Your task to perform on an android device: Open ESPN.com Image 0: 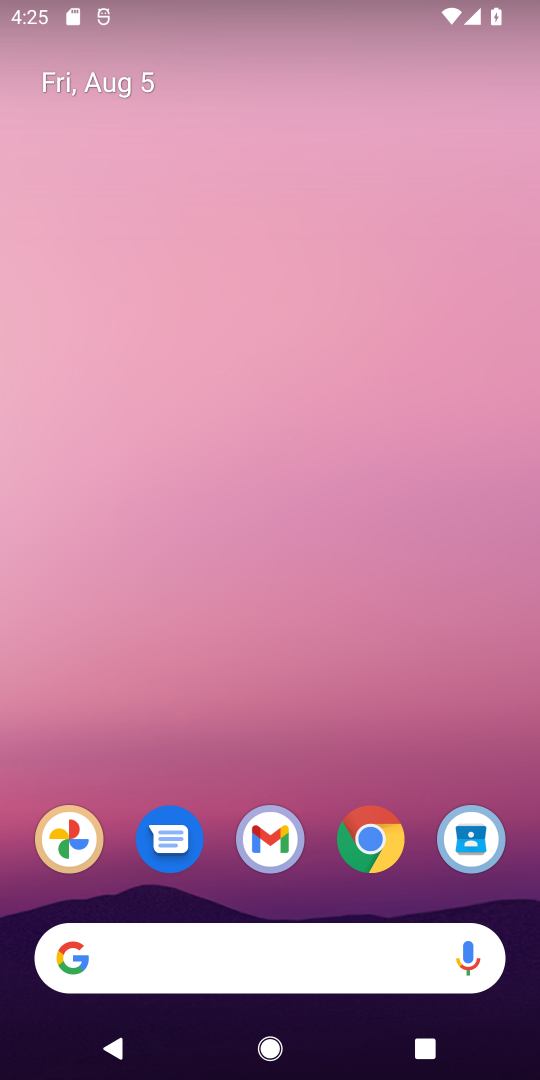
Step 0: click (353, 831)
Your task to perform on an android device: Open ESPN.com Image 1: 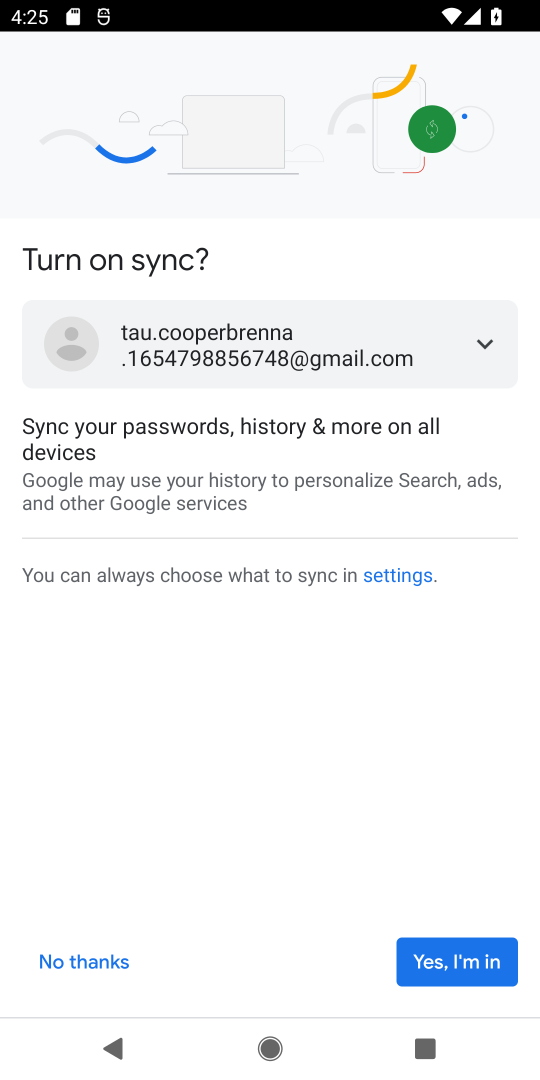
Step 1: click (442, 977)
Your task to perform on an android device: Open ESPN.com Image 2: 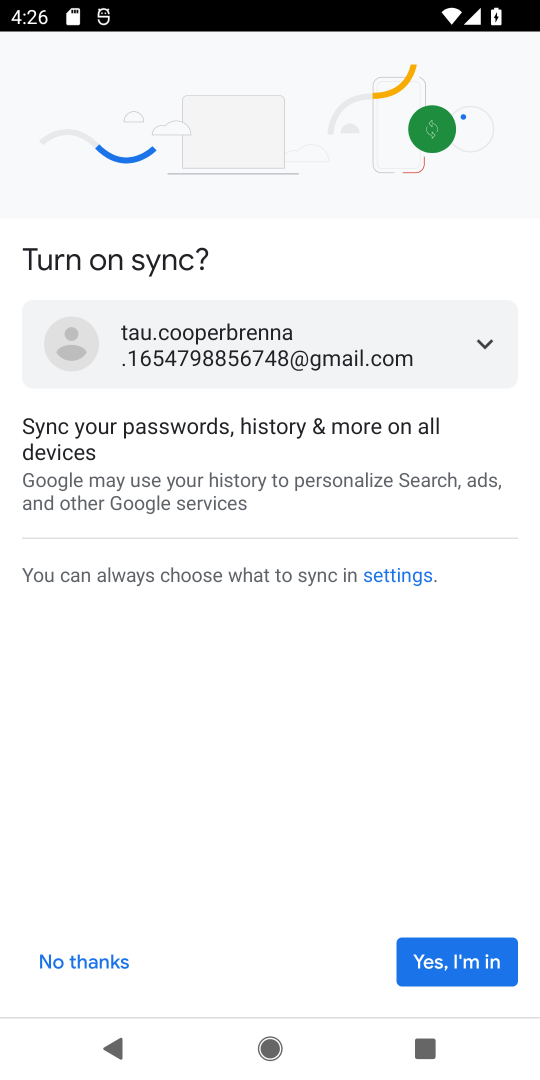
Step 2: click (442, 977)
Your task to perform on an android device: Open ESPN.com Image 3: 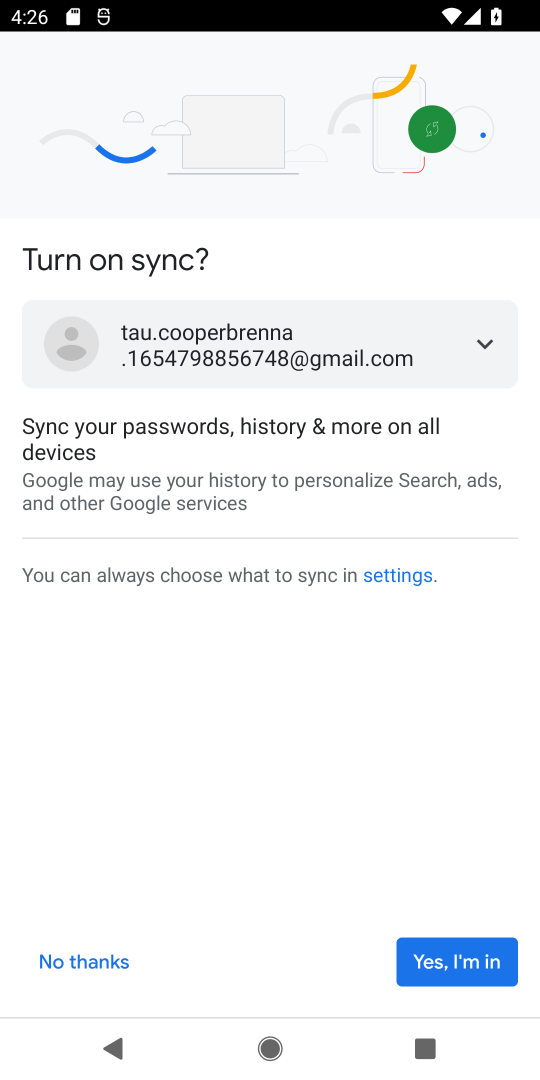
Step 3: click (451, 971)
Your task to perform on an android device: Open ESPN.com Image 4: 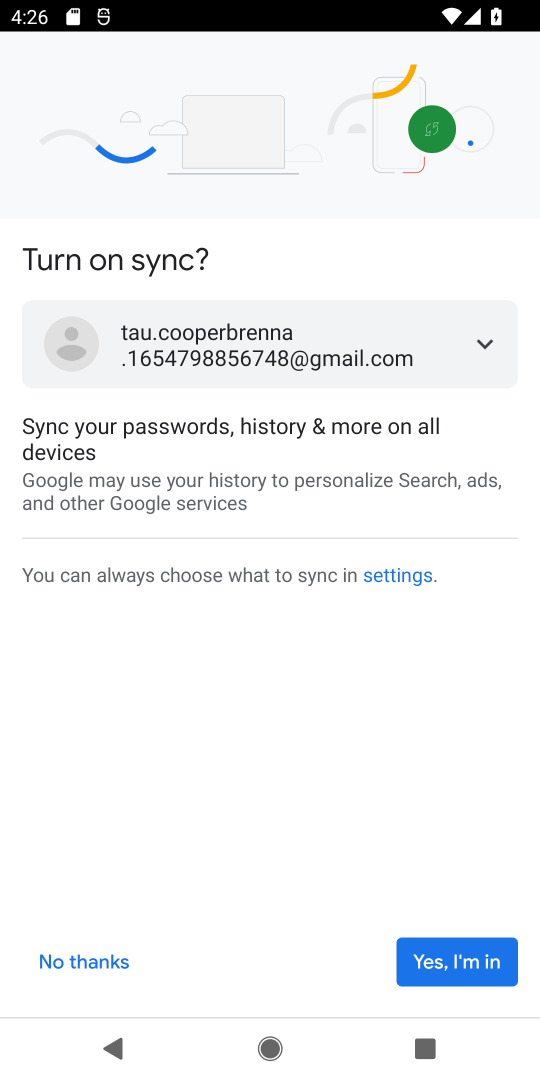
Step 4: click (439, 952)
Your task to perform on an android device: Open ESPN.com Image 5: 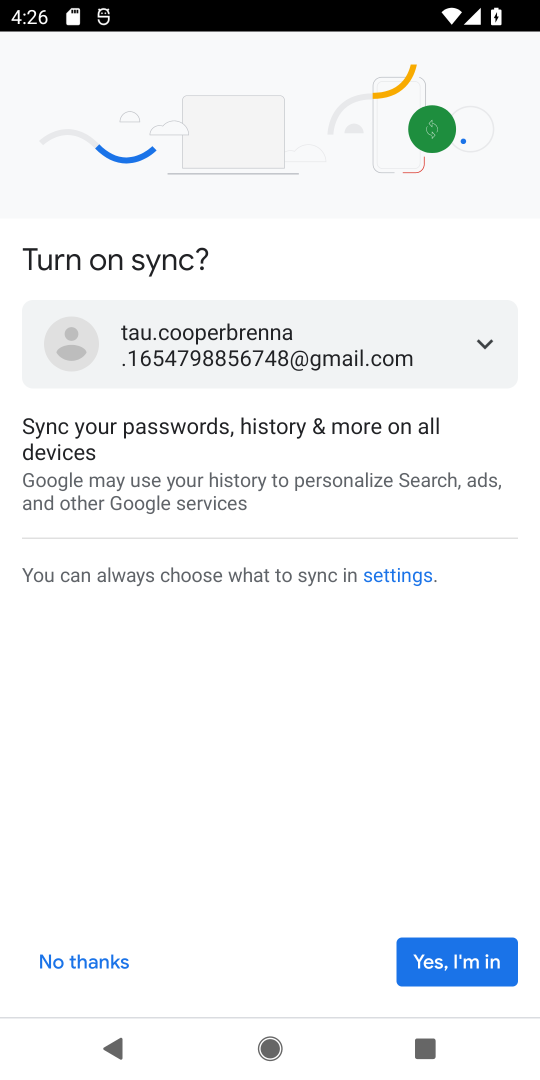
Step 5: click (473, 962)
Your task to perform on an android device: Open ESPN.com Image 6: 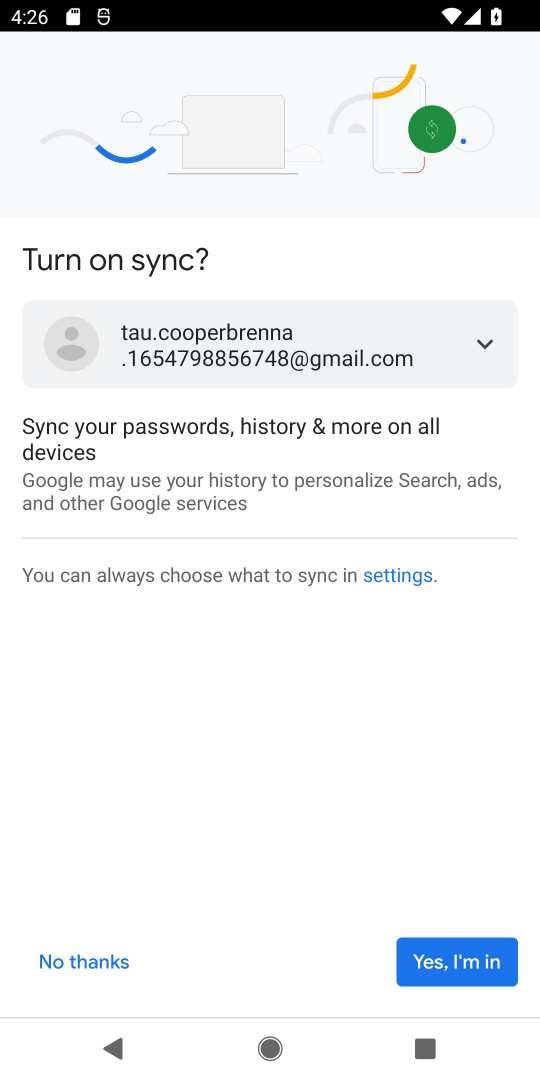
Step 6: click (453, 964)
Your task to perform on an android device: Open ESPN.com Image 7: 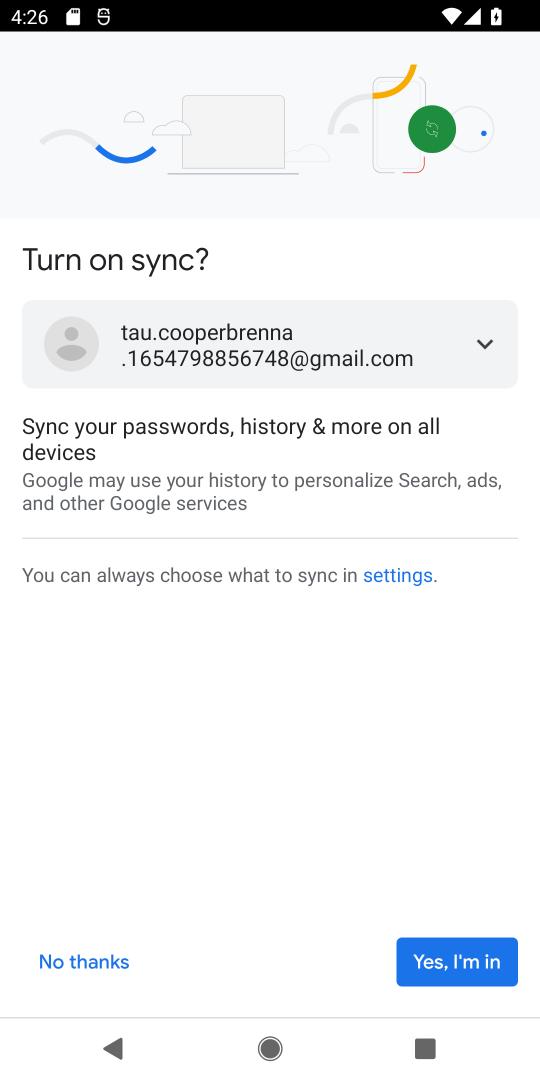
Step 7: click (437, 973)
Your task to perform on an android device: Open ESPN.com Image 8: 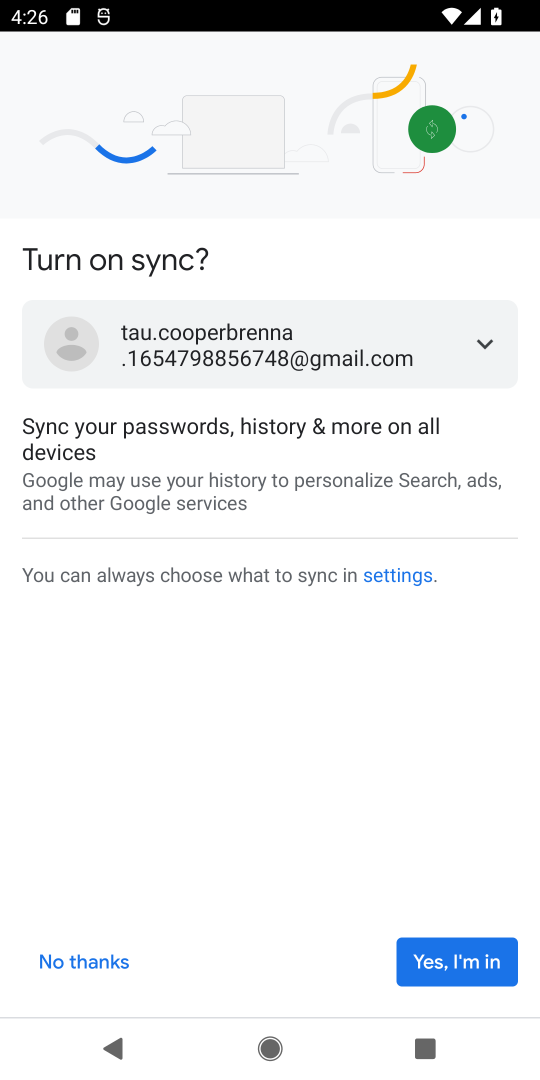
Step 8: click (413, 959)
Your task to perform on an android device: Open ESPN.com Image 9: 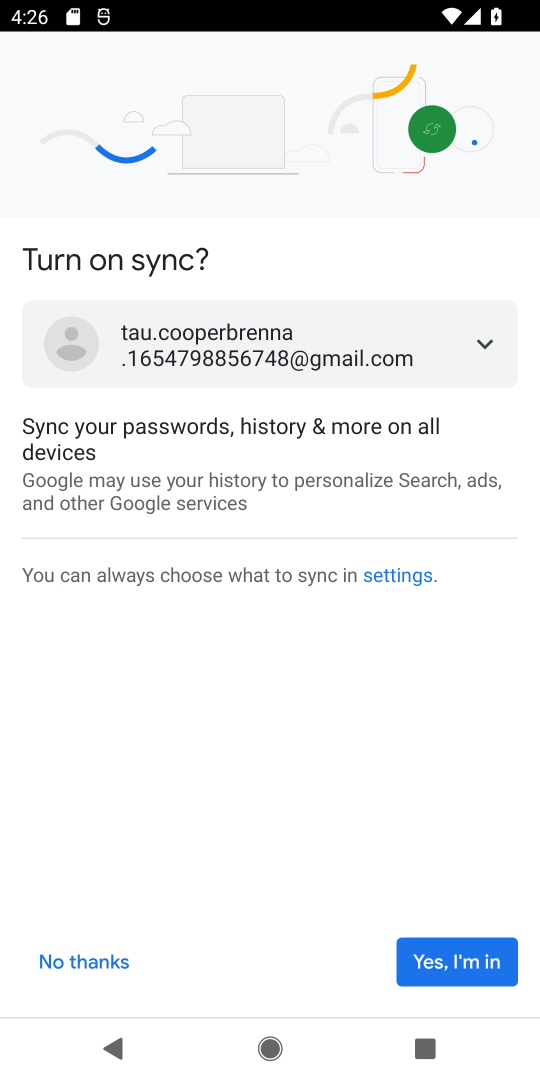
Step 9: task complete